Your task to perform on an android device: Open Youtube and go to the subscriptions tab Image 0: 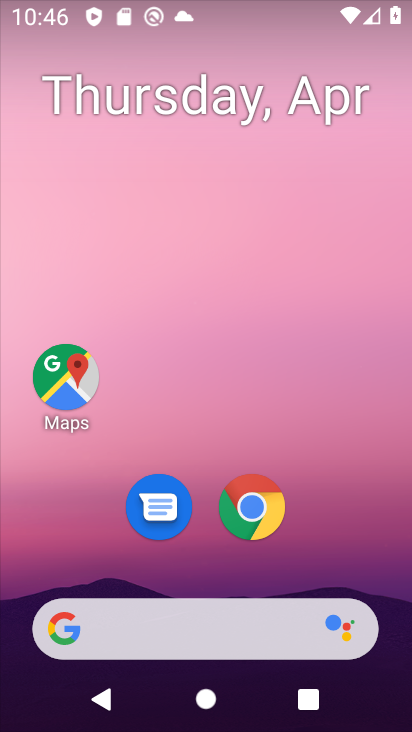
Step 0: drag from (178, 593) to (297, 57)
Your task to perform on an android device: Open Youtube and go to the subscriptions tab Image 1: 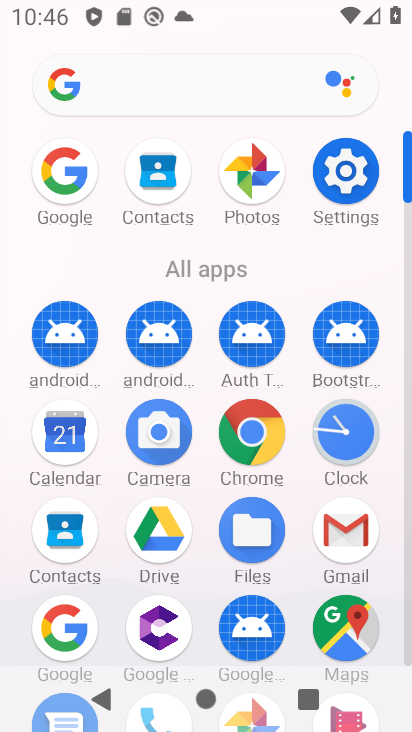
Step 1: drag from (189, 676) to (267, 242)
Your task to perform on an android device: Open Youtube and go to the subscriptions tab Image 2: 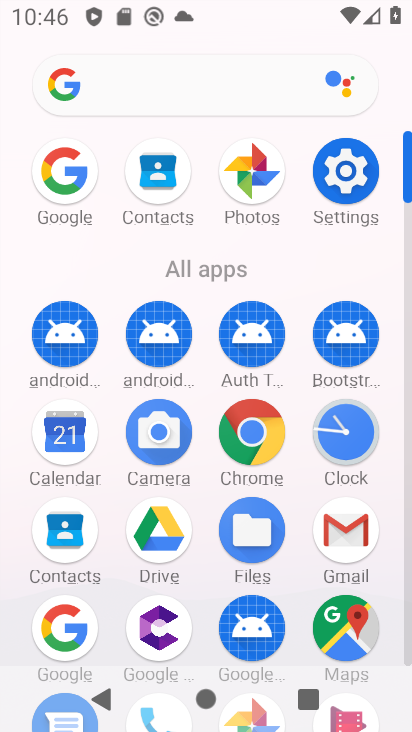
Step 2: drag from (409, 195) to (353, 686)
Your task to perform on an android device: Open Youtube and go to the subscriptions tab Image 3: 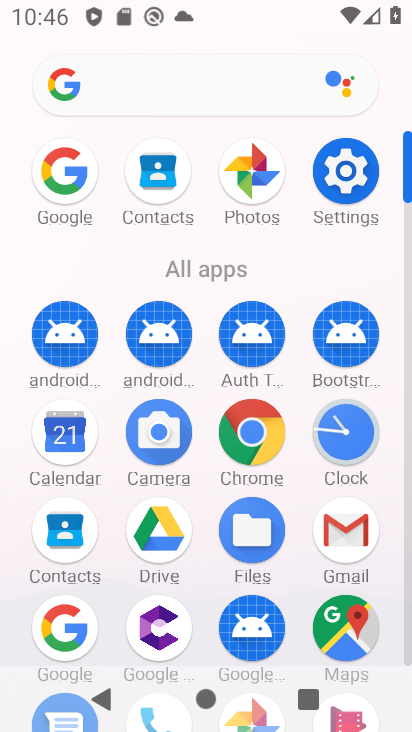
Step 3: drag from (409, 179) to (386, 207)
Your task to perform on an android device: Open Youtube and go to the subscriptions tab Image 4: 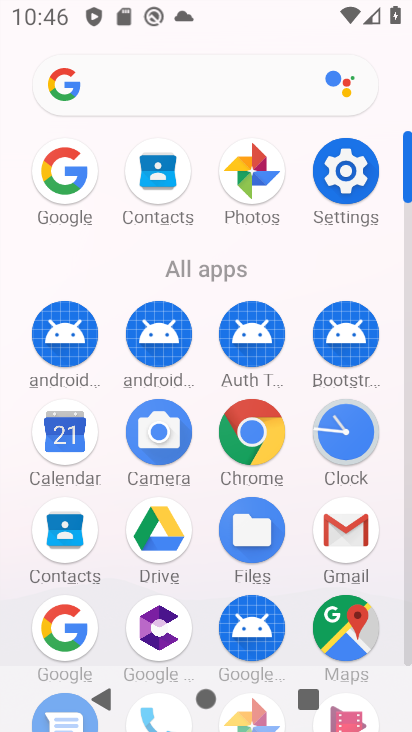
Step 4: drag from (408, 646) to (397, 322)
Your task to perform on an android device: Open Youtube and go to the subscriptions tab Image 5: 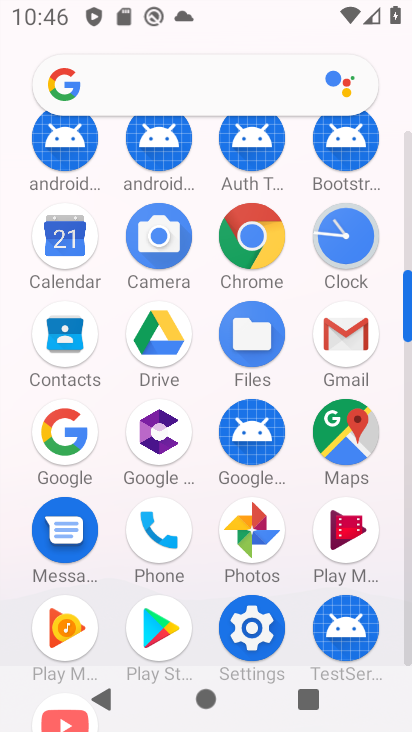
Step 5: drag from (396, 665) to (406, 314)
Your task to perform on an android device: Open Youtube and go to the subscriptions tab Image 6: 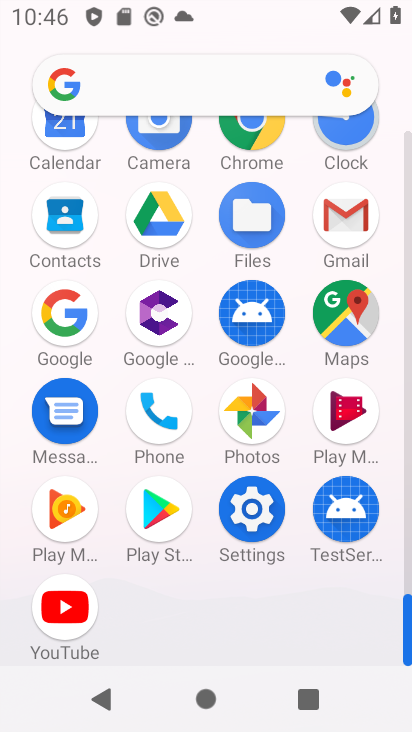
Step 6: click (78, 614)
Your task to perform on an android device: Open Youtube and go to the subscriptions tab Image 7: 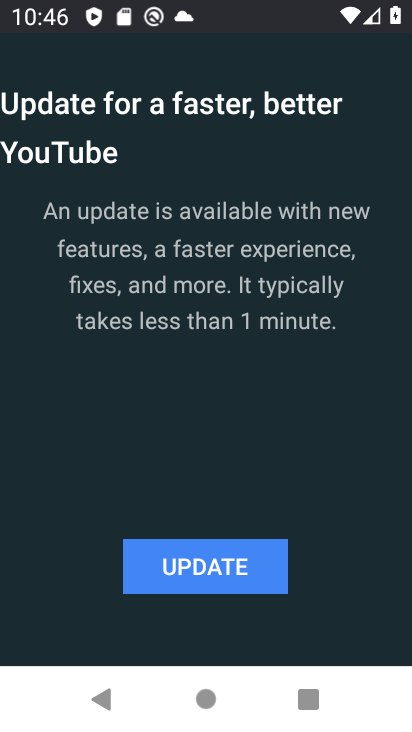
Step 7: click (262, 572)
Your task to perform on an android device: Open Youtube and go to the subscriptions tab Image 8: 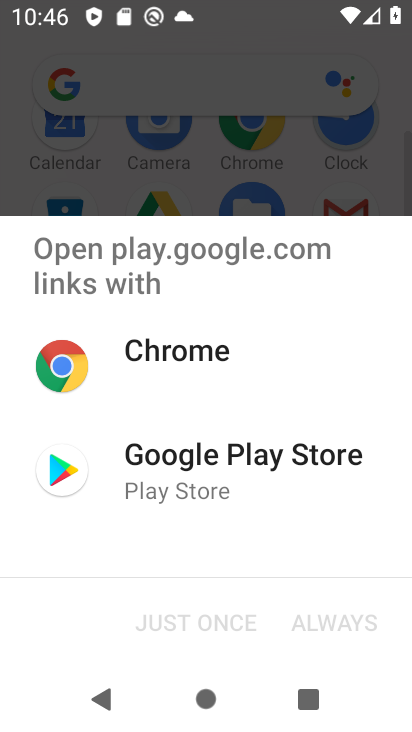
Step 8: click (190, 471)
Your task to perform on an android device: Open Youtube and go to the subscriptions tab Image 9: 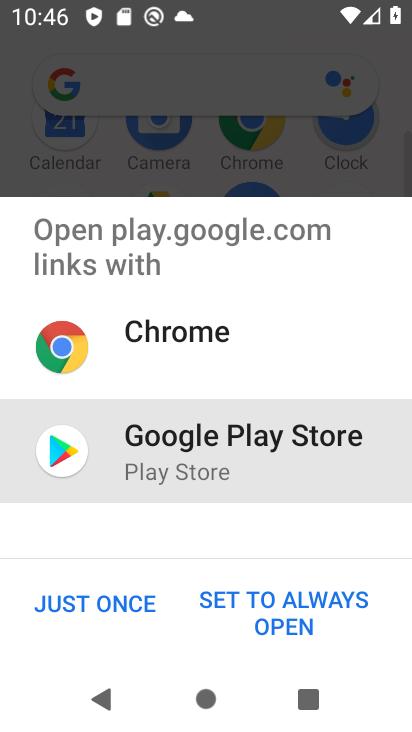
Step 9: click (147, 606)
Your task to perform on an android device: Open Youtube and go to the subscriptions tab Image 10: 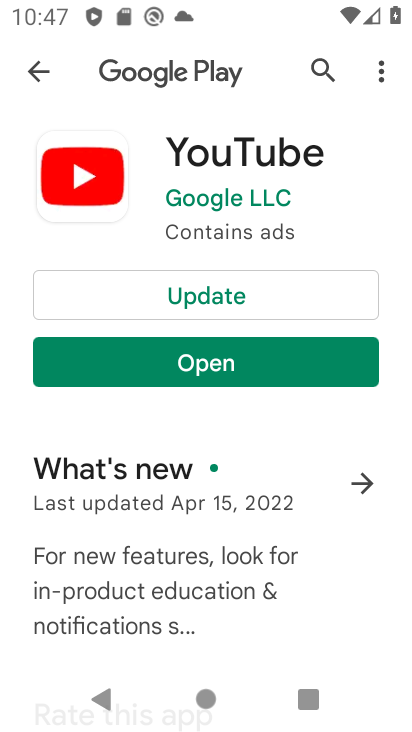
Step 10: click (272, 299)
Your task to perform on an android device: Open Youtube and go to the subscriptions tab Image 11: 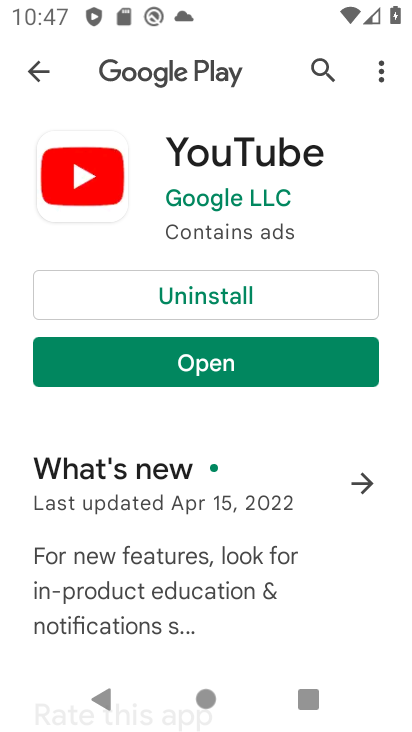
Step 11: click (231, 368)
Your task to perform on an android device: Open Youtube and go to the subscriptions tab Image 12: 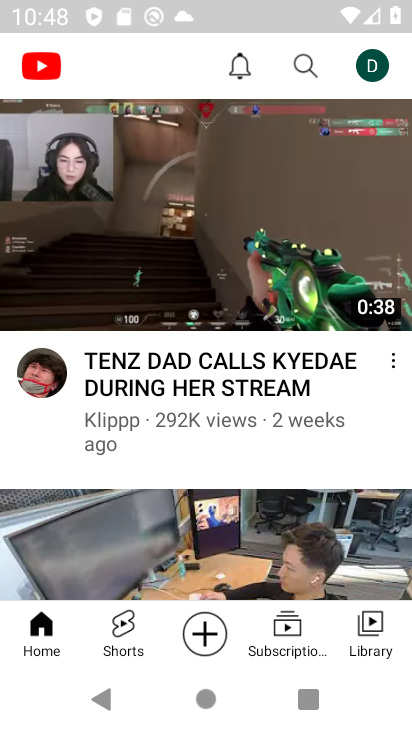
Step 12: click (300, 639)
Your task to perform on an android device: Open Youtube and go to the subscriptions tab Image 13: 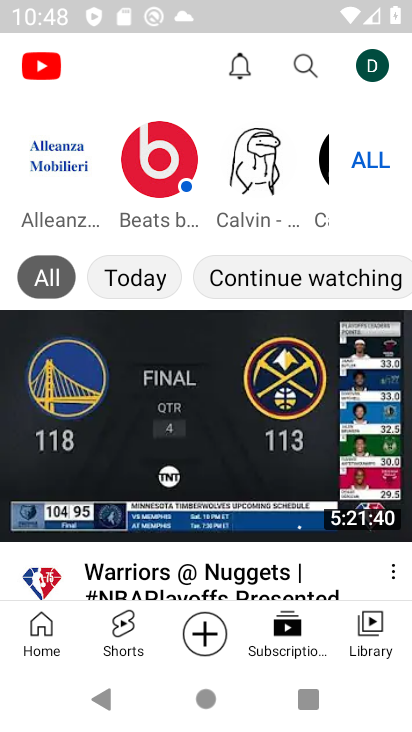
Step 13: task complete